Your task to perform on an android device: Search for custom t-shirts on Etsy. Image 0: 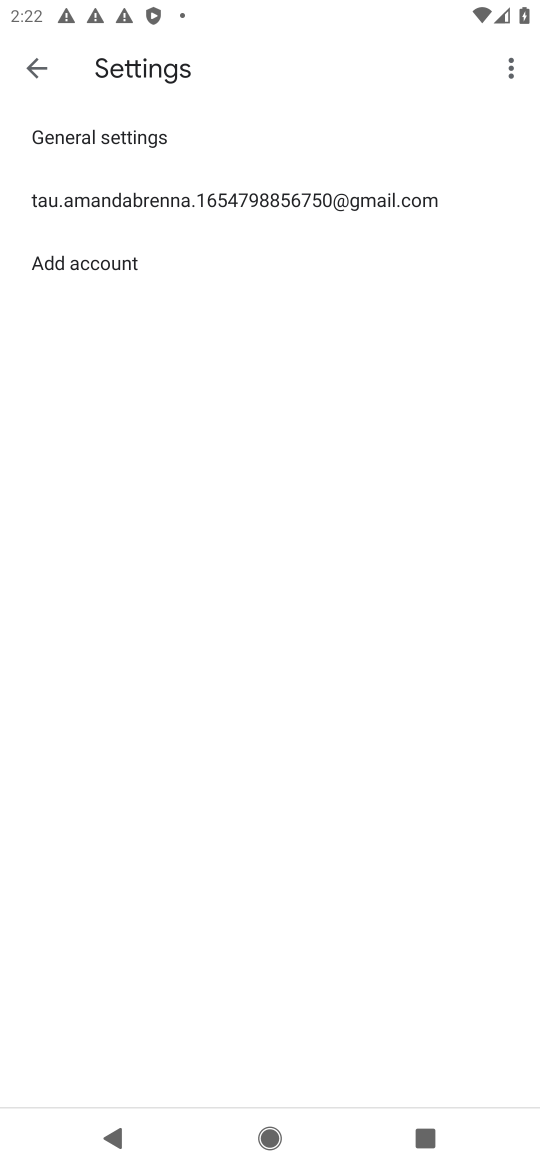
Step 0: press home button
Your task to perform on an android device: Search for custom t-shirts on Etsy. Image 1: 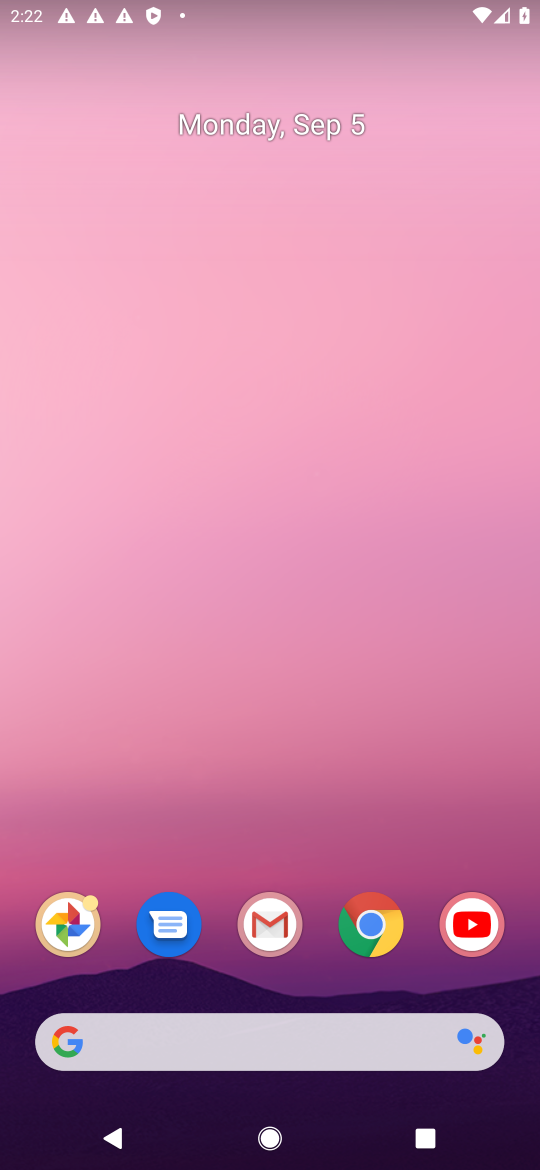
Step 1: click (360, 913)
Your task to perform on an android device: Search for custom t-shirts on Etsy. Image 2: 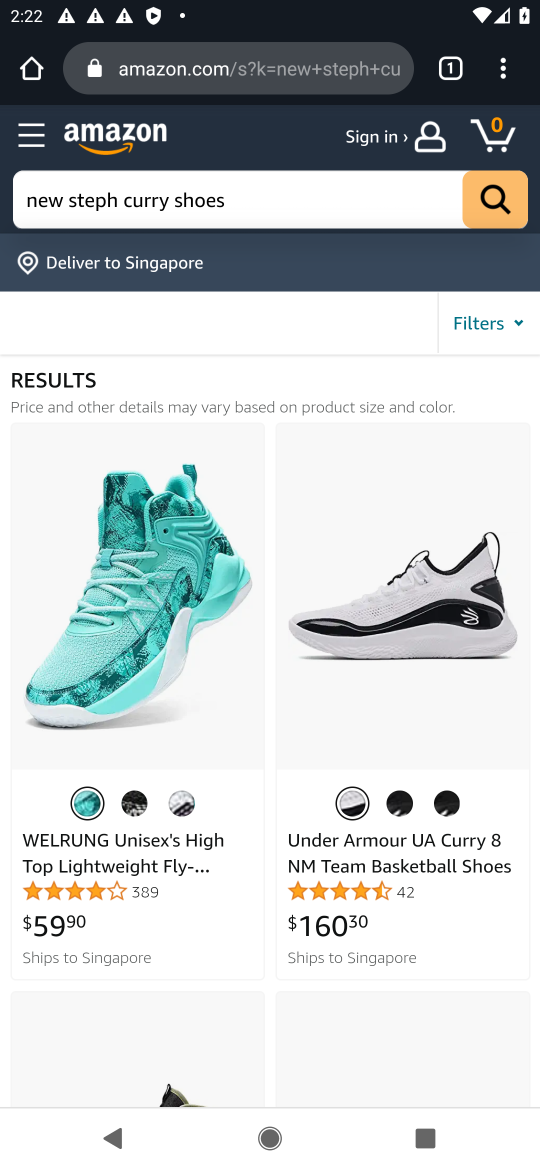
Step 2: click (272, 79)
Your task to perform on an android device: Search for custom t-shirts on Etsy. Image 3: 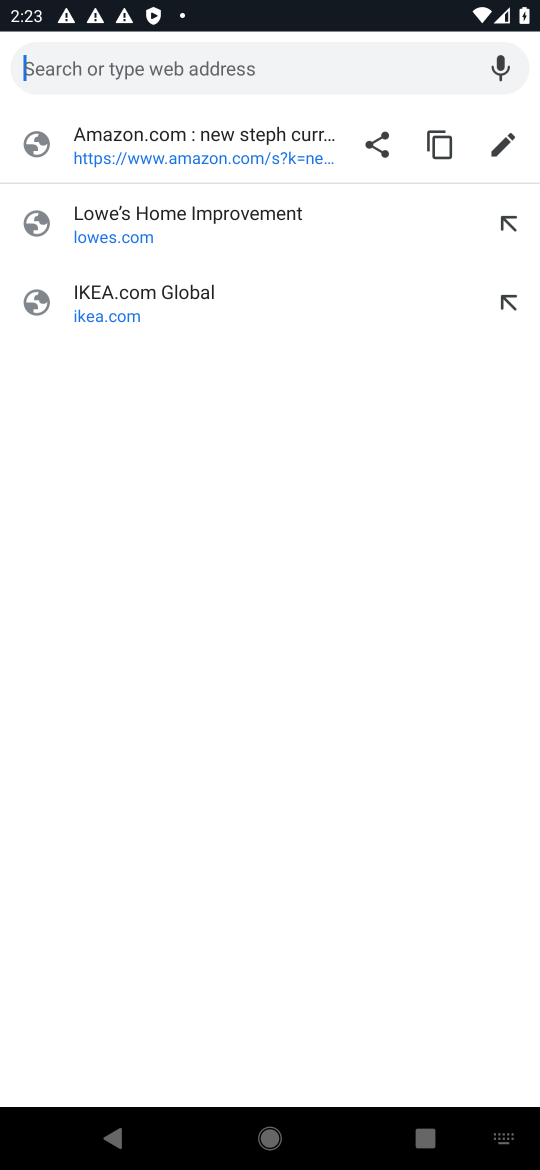
Step 3: type "Etsy"
Your task to perform on an android device: Search for custom t-shirts on Etsy. Image 4: 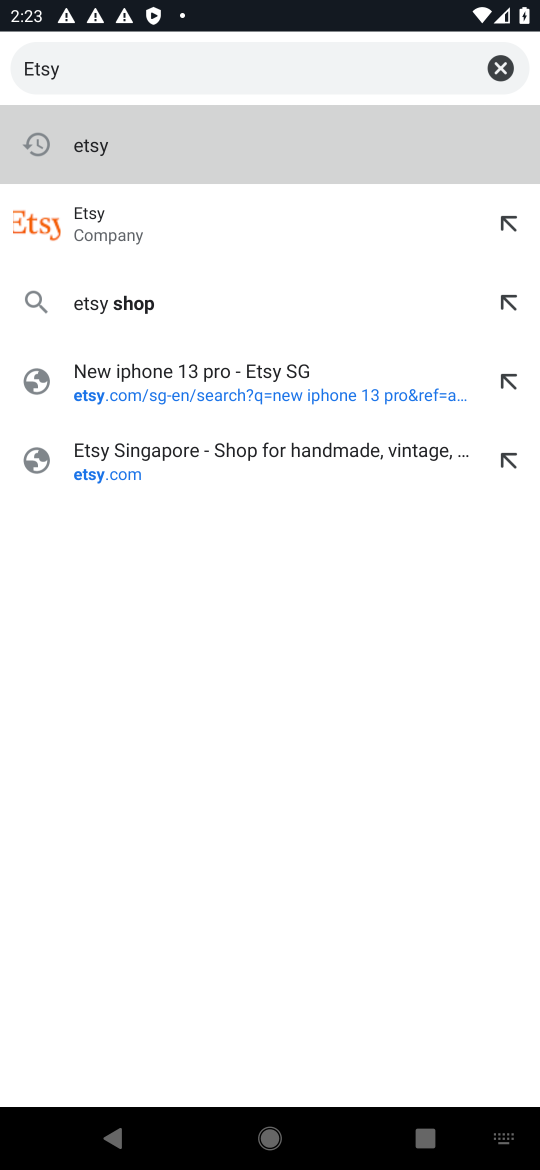
Step 4: click (57, 229)
Your task to perform on an android device: Search for custom t-shirts on Etsy. Image 5: 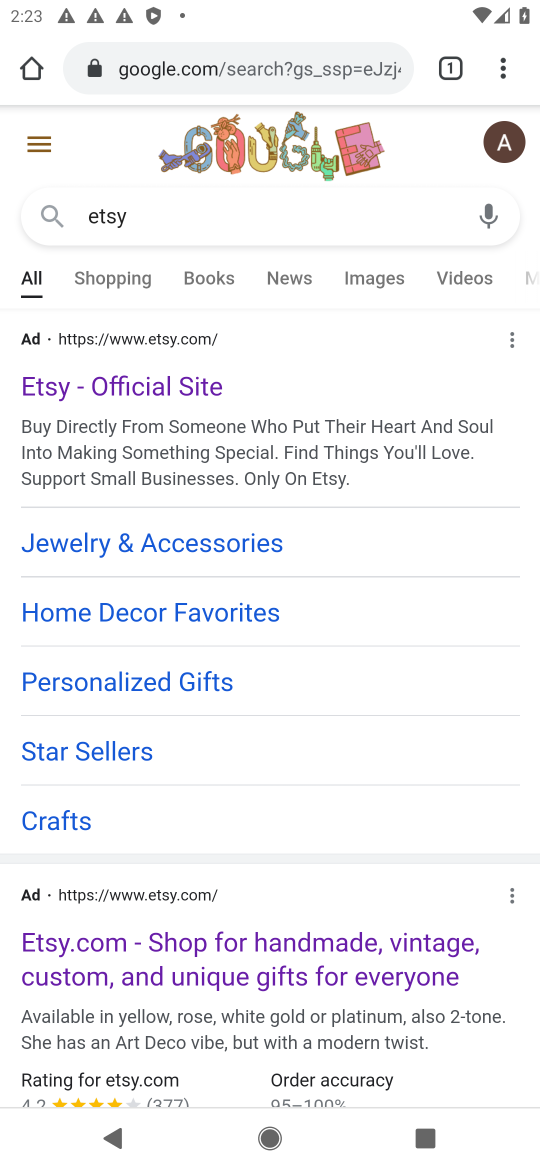
Step 5: drag from (227, 747) to (305, 228)
Your task to perform on an android device: Search for custom t-shirts on Etsy. Image 6: 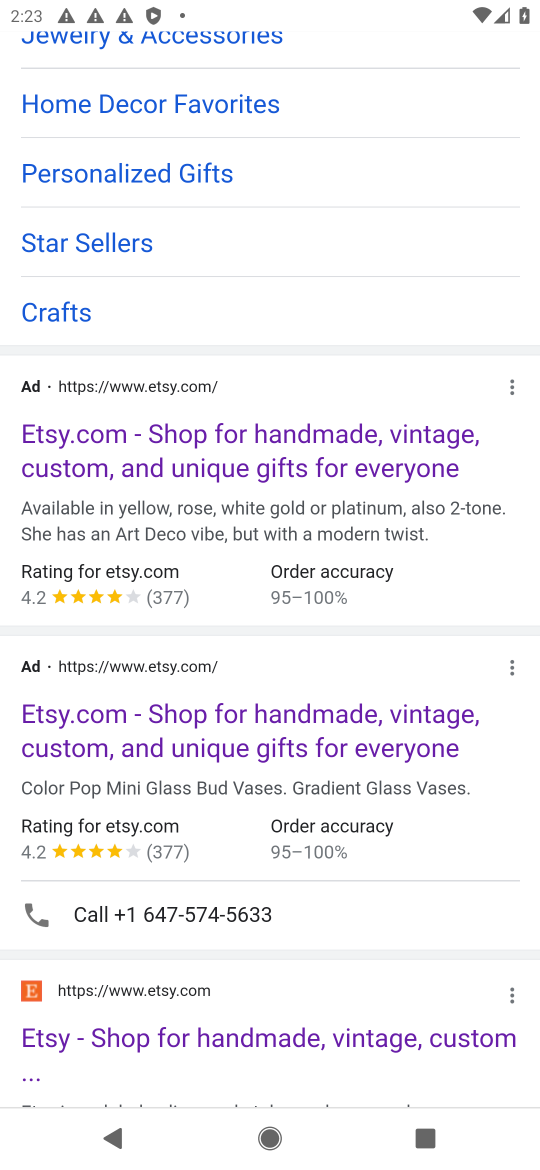
Step 6: drag from (334, 279) to (366, 137)
Your task to perform on an android device: Search for custom t-shirts on Etsy. Image 7: 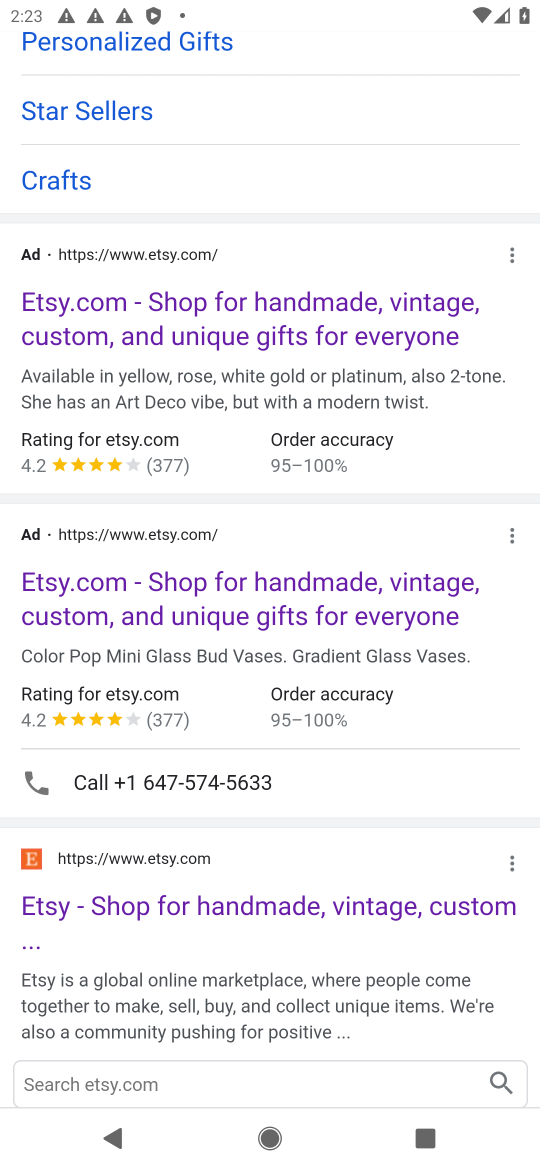
Step 7: click (198, 901)
Your task to perform on an android device: Search for custom t-shirts on Etsy. Image 8: 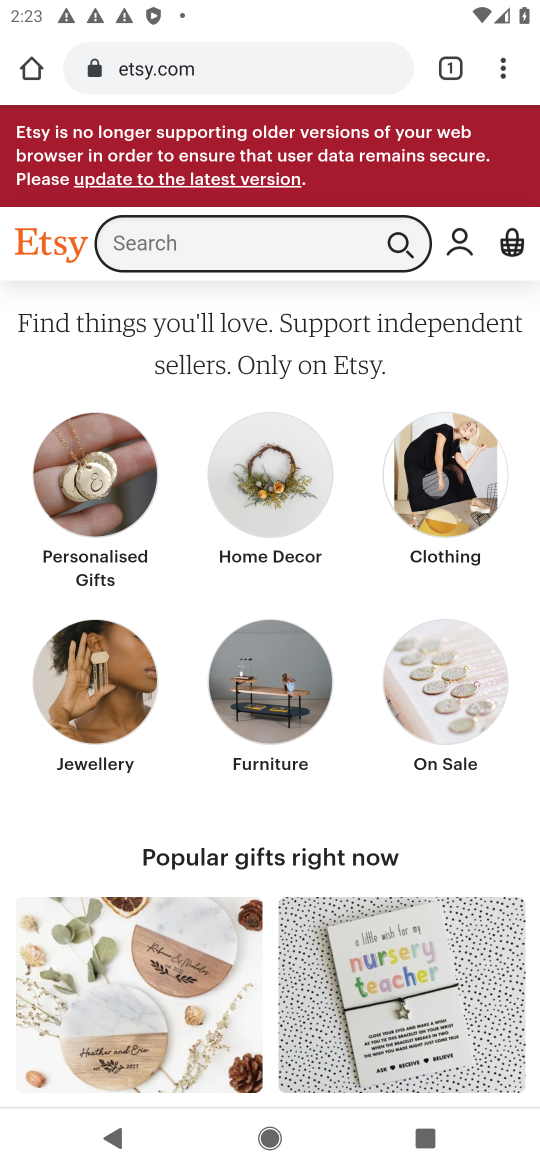
Step 8: click (188, 230)
Your task to perform on an android device: Search for custom t-shirts on Etsy. Image 9: 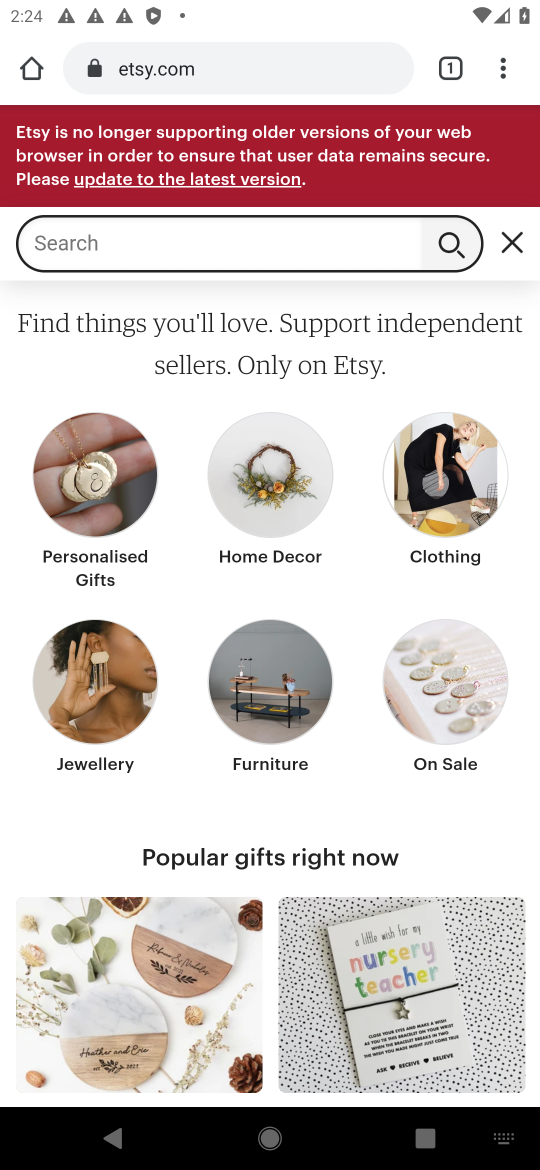
Step 9: type "custom t-shirts"
Your task to perform on an android device: Search for custom t-shirts on Etsy. Image 10: 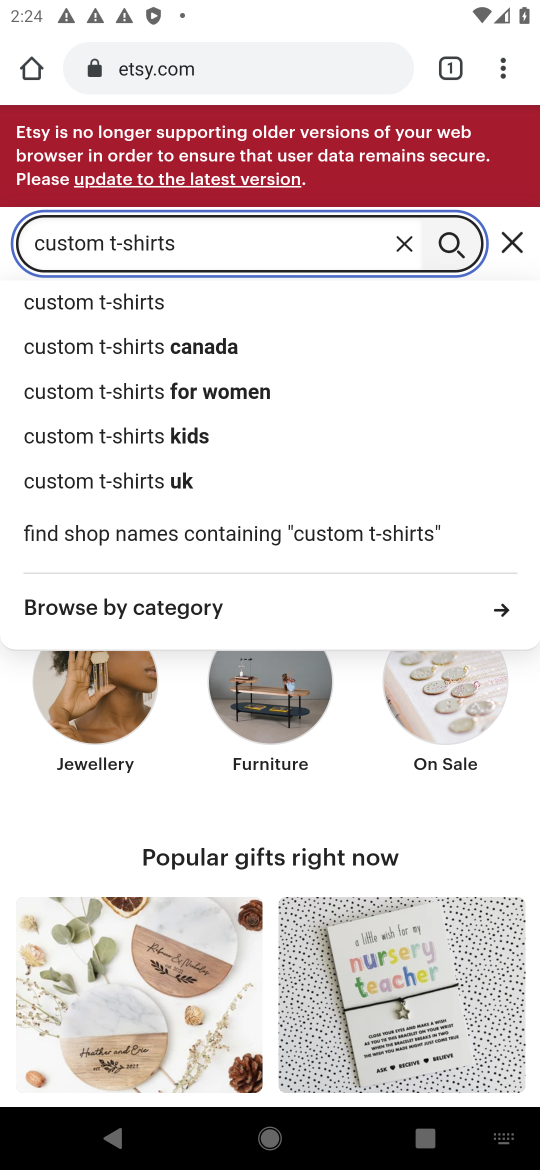
Step 10: click (152, 301)
Your task to perform on an android device: Search for custom t-shirts on Etsy. Image 11: 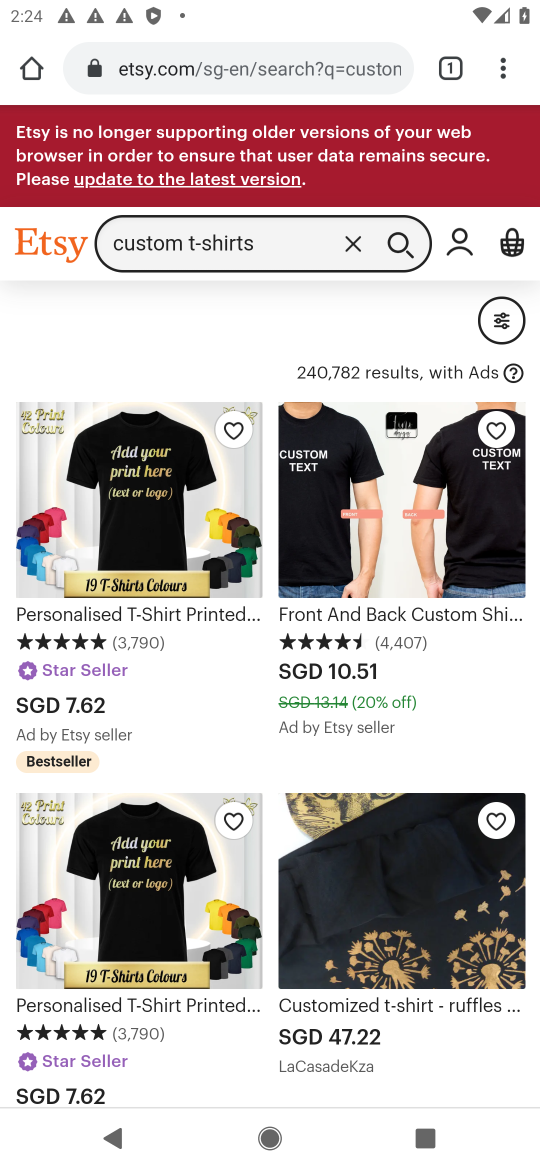
Step 11: task complete